Your task to perform on an android device: Open Youtube and go to the subscriptions tab Image 0: 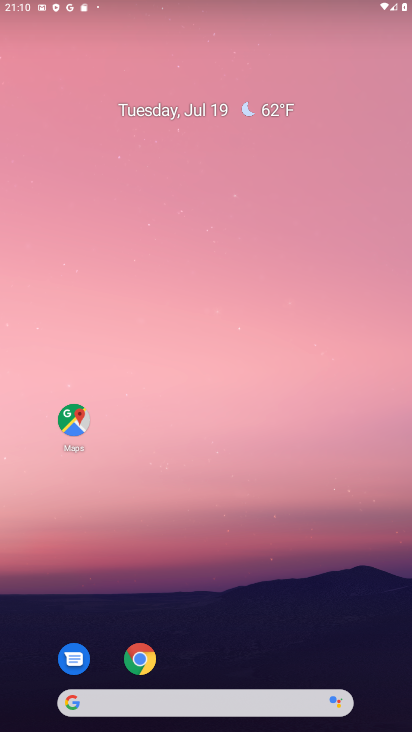
Step 0: press home button
Your task to perform on an android device: Open Youtube and go to the subscriptions tab Image 1: 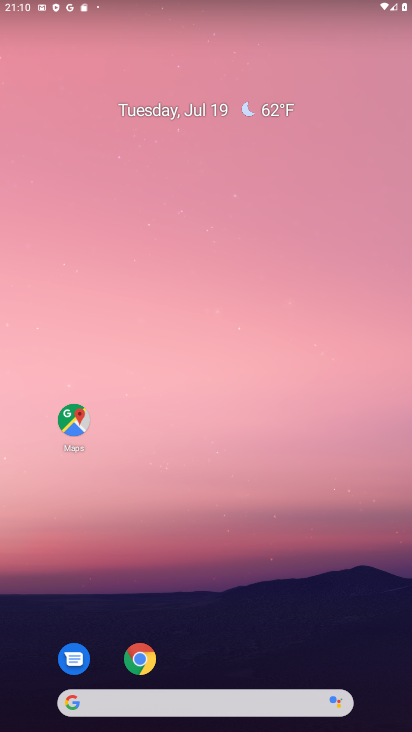
Step 1: drag from (264, 540) to (380, 8)
Your task to perform on an android device: Open Youtube and go to the subscriptions tab Image 2: 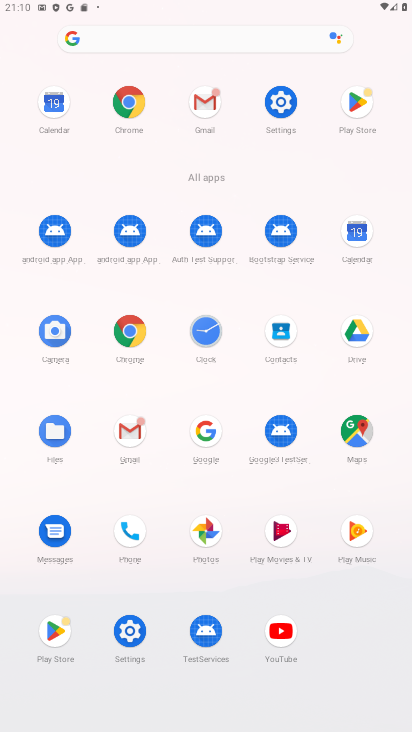
Step 2: click (269, 635)
Your task to perform on an android device: Open Youtube and go to the subscriptions tab Image 3: 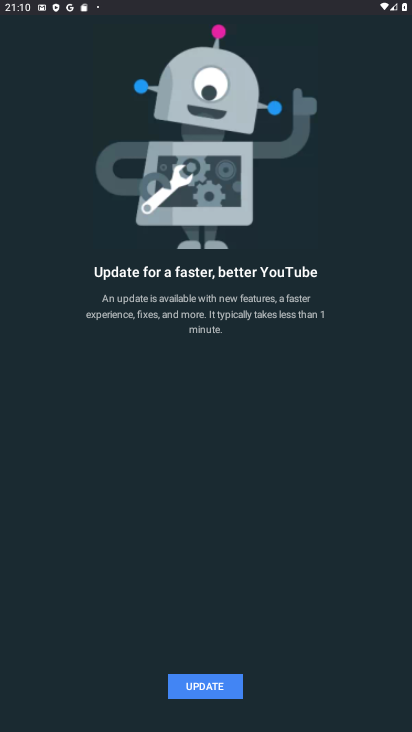
Step 3: click (222, 679)
Your task to perform on an android device: Open Youtube and go to the subscriptions tab Image 4: 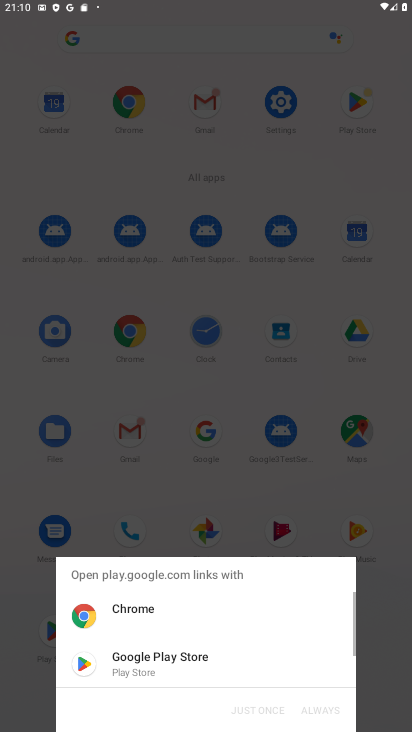
Step 4: click (207, 659)
Your task to perform on an android device: Open Youtube and go to the subscriptions tab Image 5: 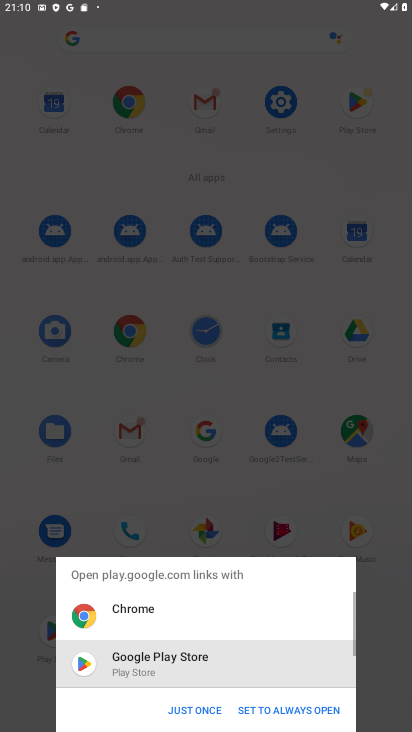
Step 5: click (194, 715)
Your task to perform on an android device: Open Youtube and go to the subscriptions tab Image 6: 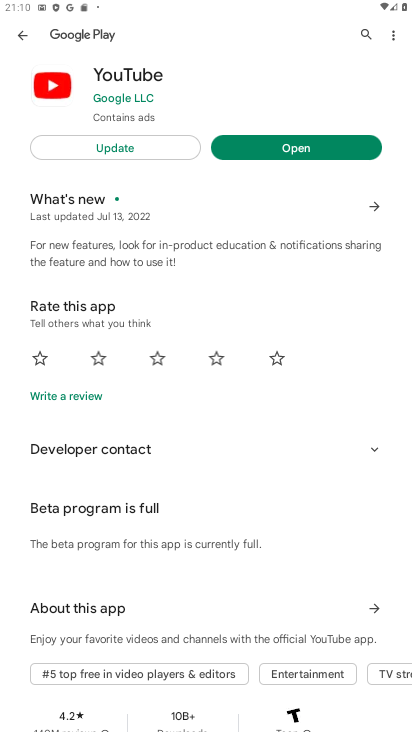
Step 6: click (109, 156)
Your task to perform on an android device: Open Youtube and go to the subscriptions tab Image 7: 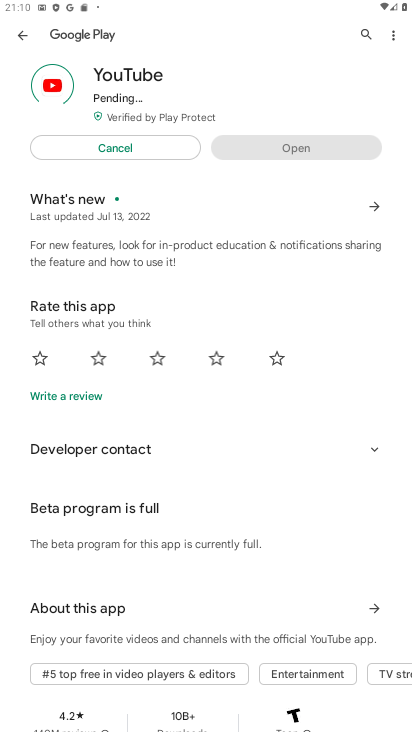
Step 7: drag from (299, 639) to (301, 365)
Your task to perform on an android device: Open Youtube and go to the subscriptions tab Image 8: 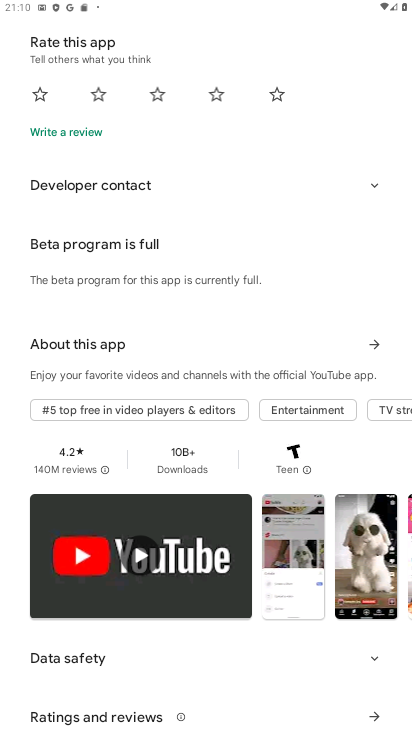
Step 8: click (301, 469)
Your task to perform on an android device: Open Youtube and go to the subscriptions tab Image 9: 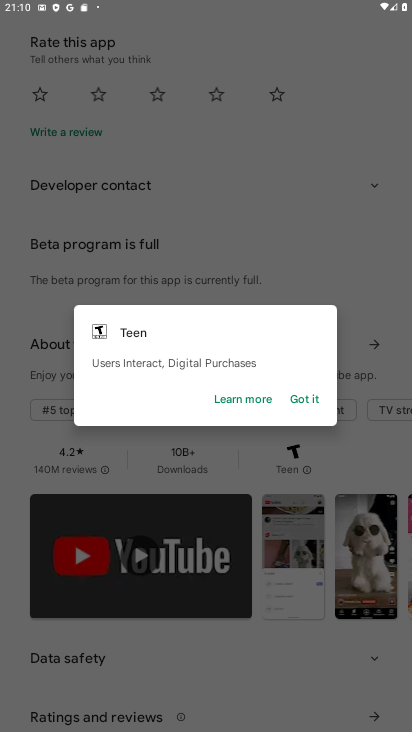
Step 9: click (318, 392)
Your task to perform on an android device: Open Youtube and go to the subscriptions tab Image 10: 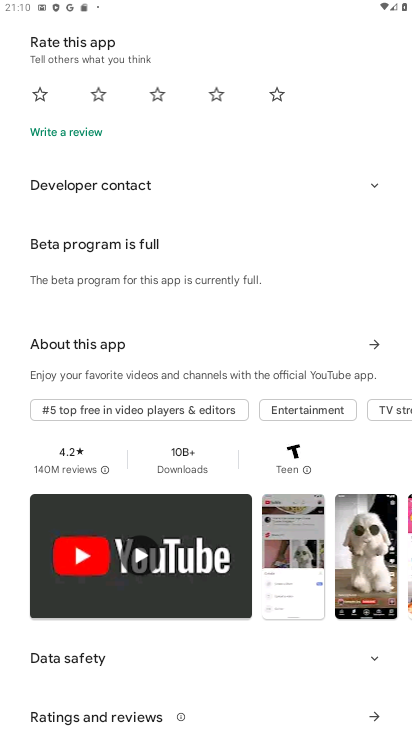
Step 10: drag from (309, 81) to (170, 729)
Your task to perform on an android device: Open Youtube and go to the subscriptions tab Image 11: 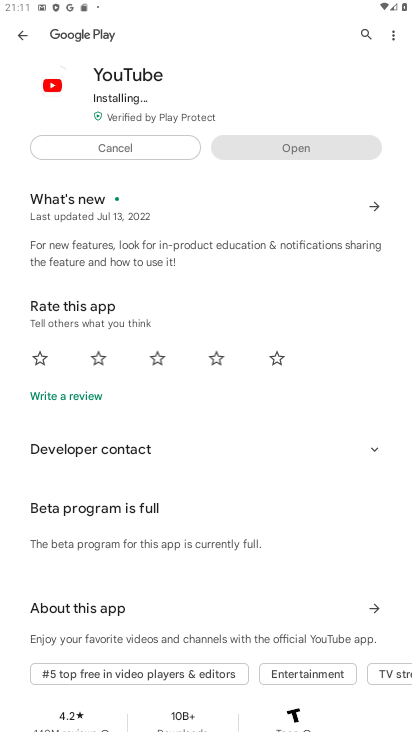
Step 11: click (251, 151)
Your task to perform on an android device: Open Youtube and go to the subscriptions tab Image 12: 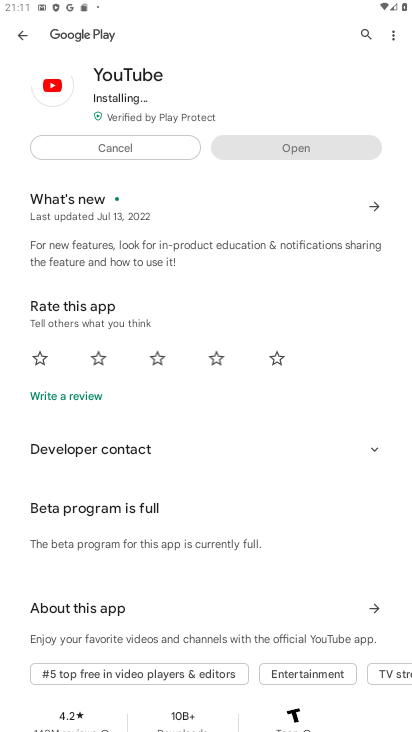
Step 12: click (251, 151)
Your task to perform on an android device: Open Youtube and go to the subscriptions tab Image 13: 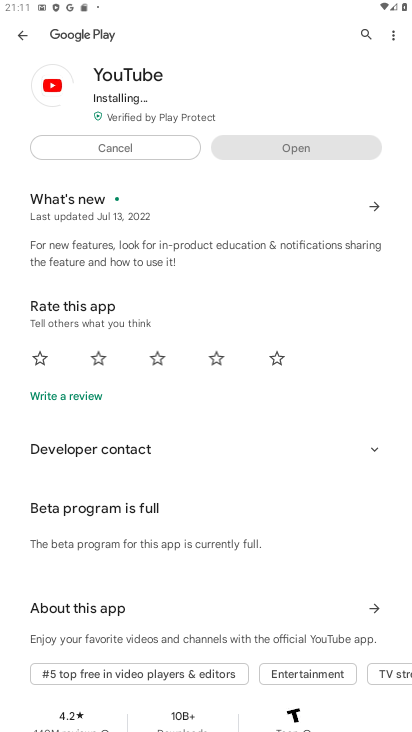
Step 13: click (251, 151)
Your task to perform on an android device: Open Youtube and go to the subscriptions tab Image 14: 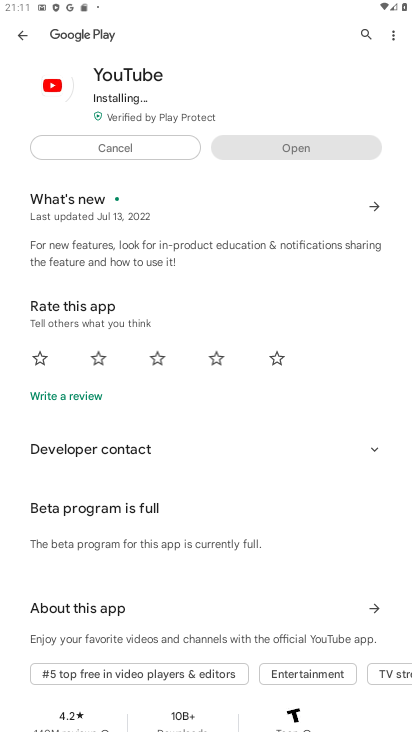
Step 14: click (251, 151)
Your task to perform on an android device: Open Youtube and go to the subscriptions tab Image 15: 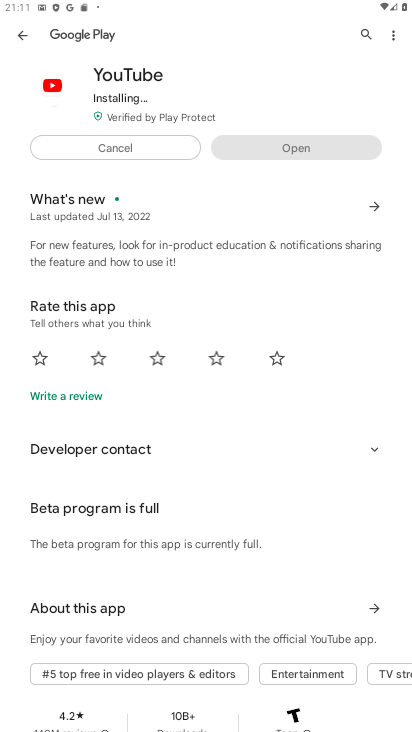
Step 15: click (251, 151)
Your task to perform on an android device: Open Youtube and go to the subscriptions tab Image 16: 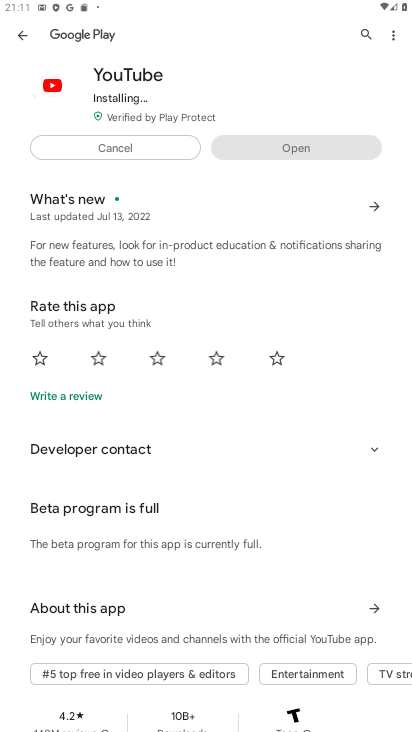
Step 16: click (251, 151)
Your task to perform on an android device: Open Youtube and go to the subscriptions tab Image 17: 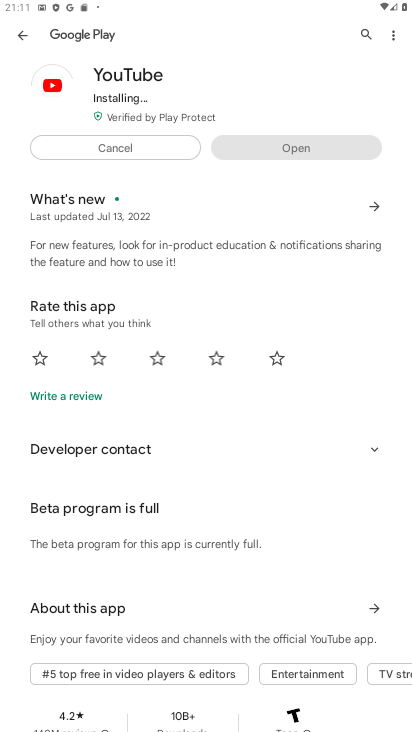
Step 17: click (251, 151)
Your task to perform on an android device: Open Youtube and go to the subscriptions tab Image 18: 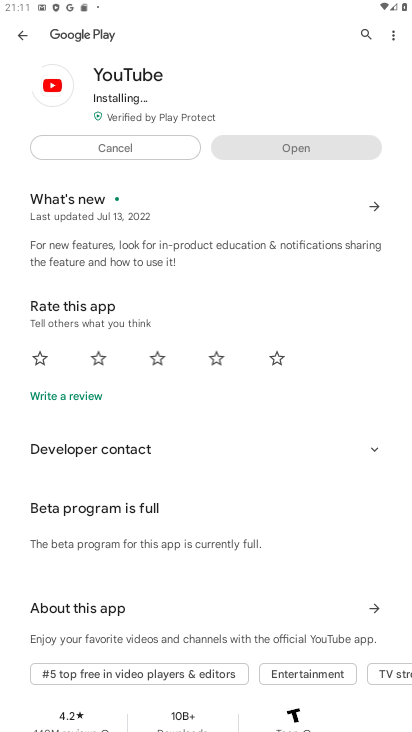
Step 18: click (251, 151)
Your task to perform on an android device: Open Youtube and go to the subscriptions tab Image 19: 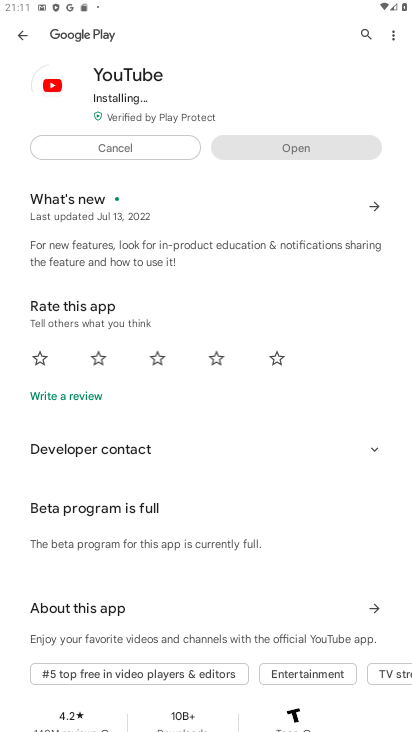
Step 19: click (251, 151)
Your task to perform on an android device: Open Youtube and go to the subscriptions tab Image 20: 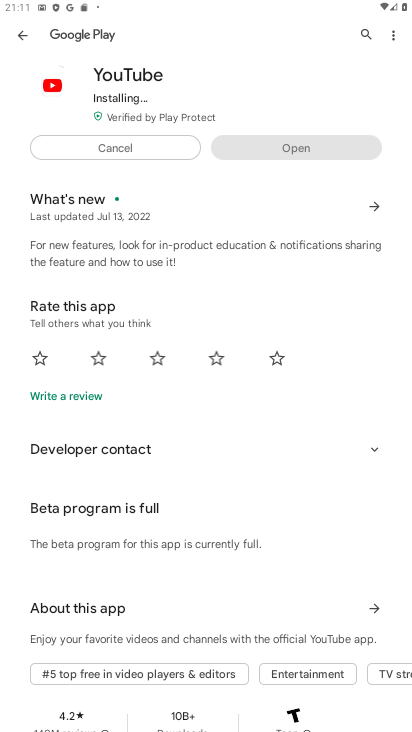
Step 20: click (251, 151)
Your task to perform on an android device: Open Youtube and go to the subscriptions tab Image 21: 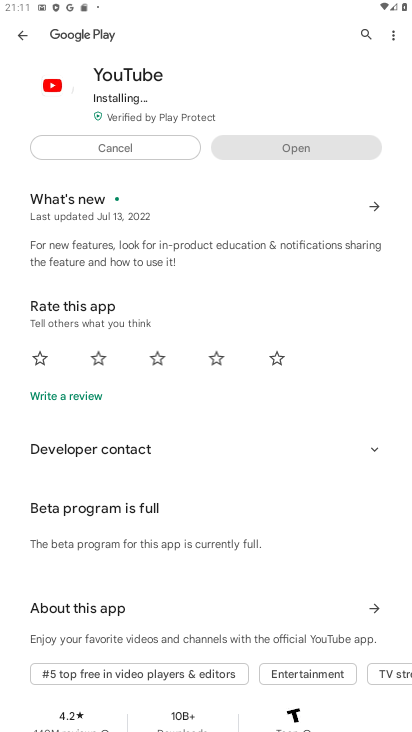
Step 21: click (251, 151)
Your task to perform on an android device: Open Youtube and go to the subscriptions tab Image 22: 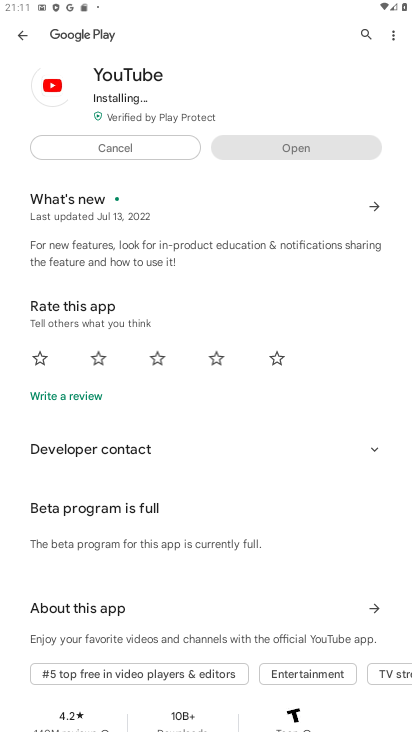
Step 22: click (251, 151)
Your task to perform on an android device: Open Youtube and go to the subscriptions tab Image 23: 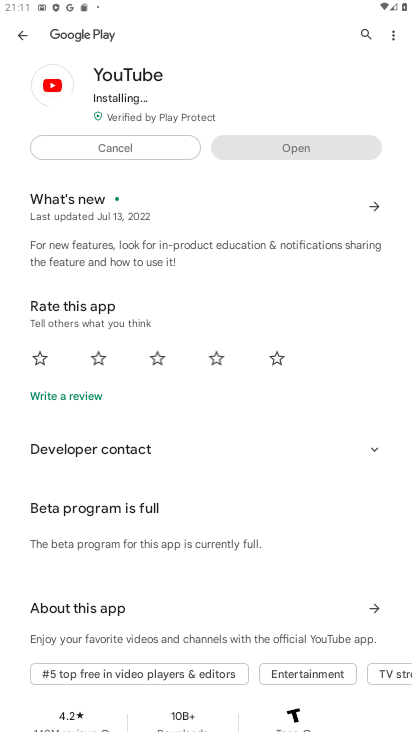
Step 23: click (251, 151)
Your task to perform on an android device: Open Youtube and go to the subscriptions tab Image 24: 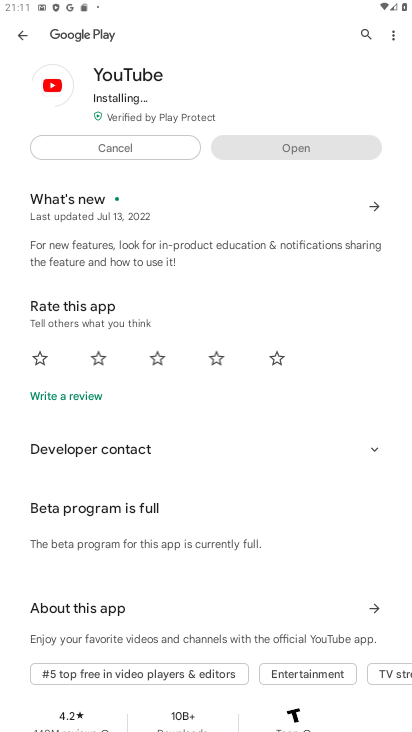
Step 24: click (251, 151)
Your task to perform on an android device: Open Youtube and go to the subscriptions tab Image 25: 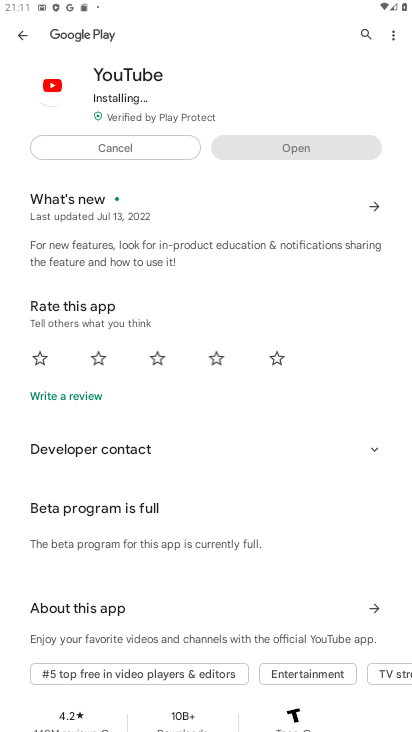
Step 25: click (251, 151)
Your task to perform on an android device: Open Youtube and go to the subscriptions tab Image 26: 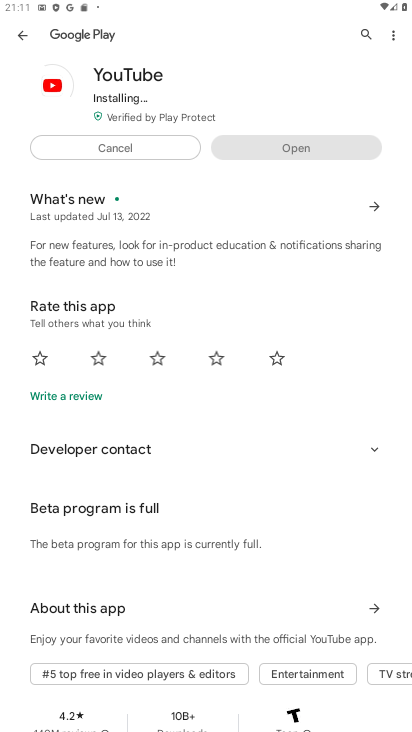
Step 26: click (251, 151)
Your task to perform on an android device: Open Youtube and go to the subscriptions tab Image 27: 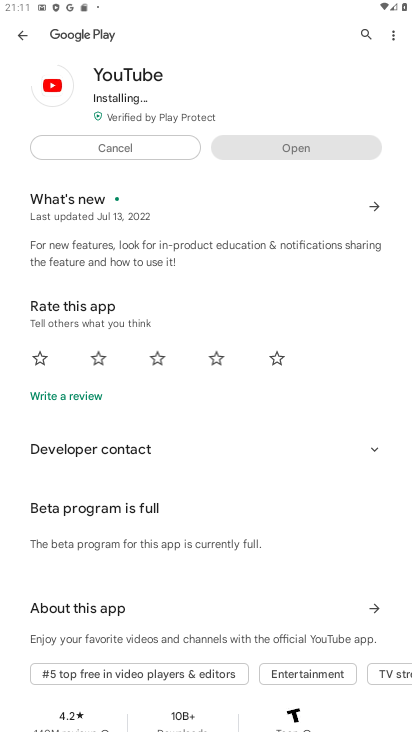
Step 27: click (251, 151)
Your task to perform on an android device: Open Youtube and go to the subscriptions tab Image 28: 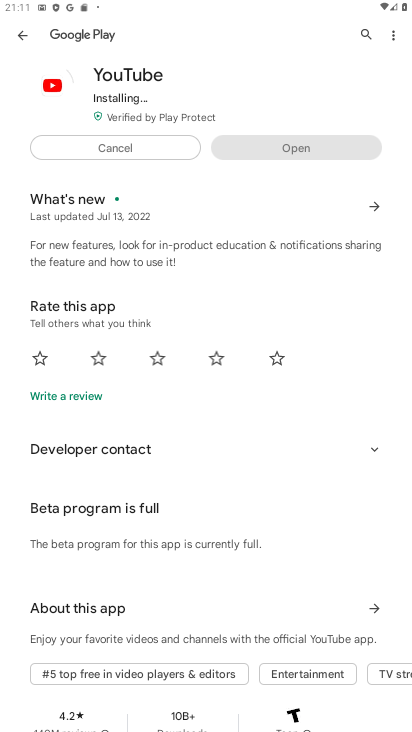
Step 28: click (251, 151)
Your task to perform on an android device: Open Youtube and go to the subscriptions tab Image 29: 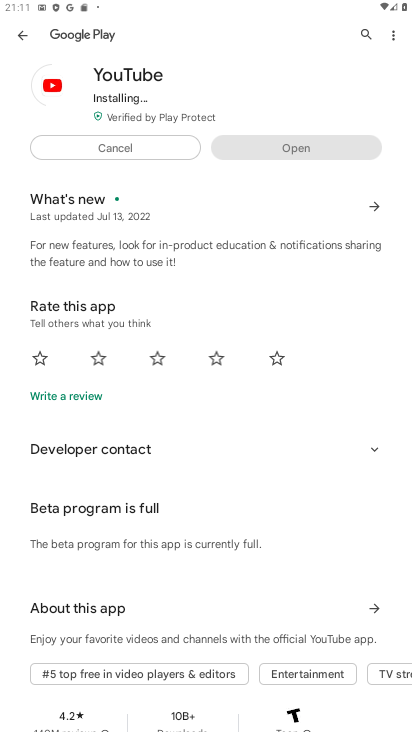
Step 29: click (251, 151)
Your task to perform on an android device: Open Youtube and go to the subscriptions tab Image 30: 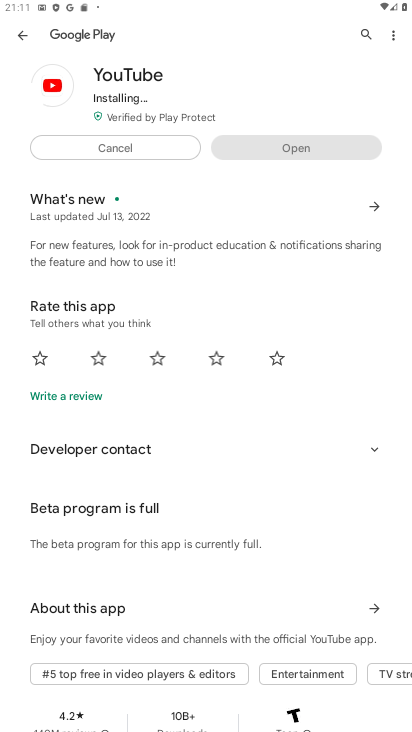
Step 30: click (251, 151)
Your task to perform on an android device: Open Youtube and go to the subscriptions tab Image 31: 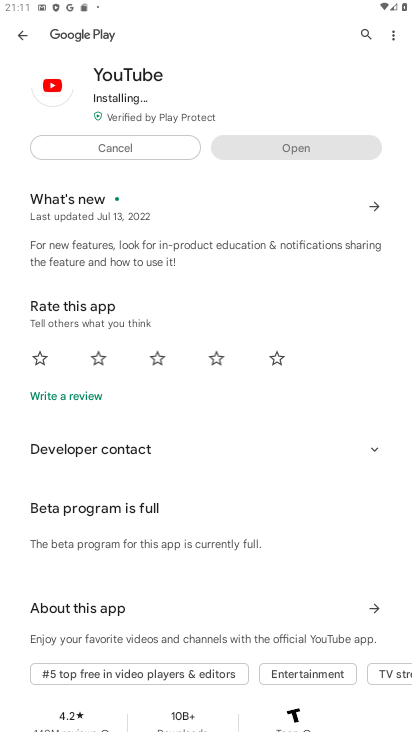
Step 31: click (251, 151)
Your task to perform on an android device: Open Youtube and go to the subscriptions tab Image 32: 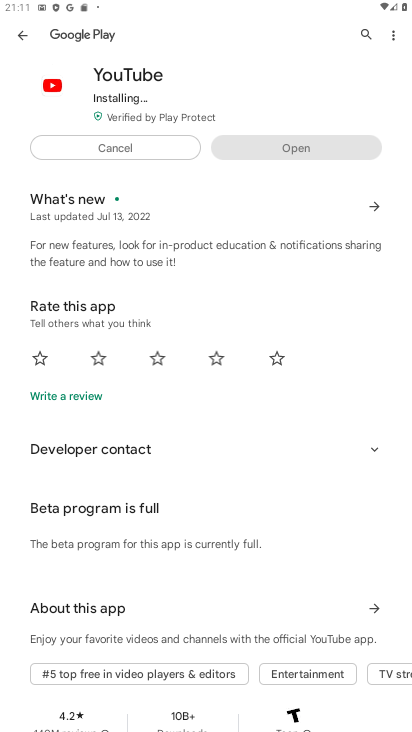
Step 32: click (251, 151)
Your task to perform on an android device: Open Youtube and go to the subscriptions tab Image 33: 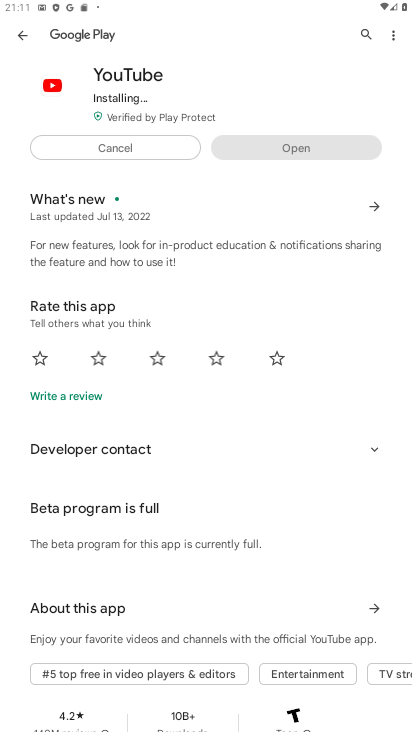
Step 33: click (251, 151)
Your task to perform on an android device: Open Youtube and go to the subscriptions tab Image 34: 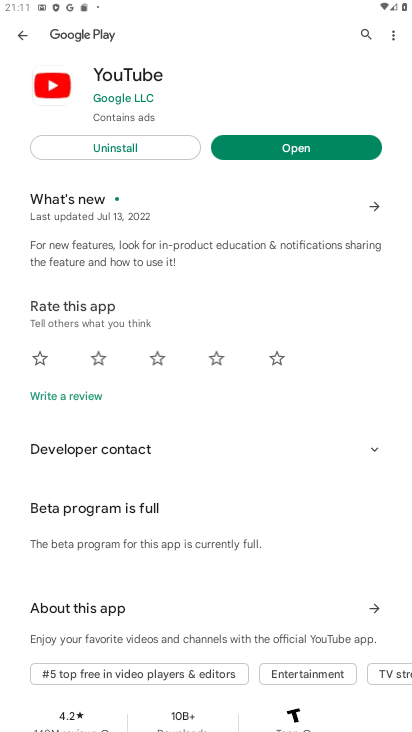
Step 34: click (251, 151)
Your task to perform on an android device: Open Youtube and go to the subscriptions tab Image 35: 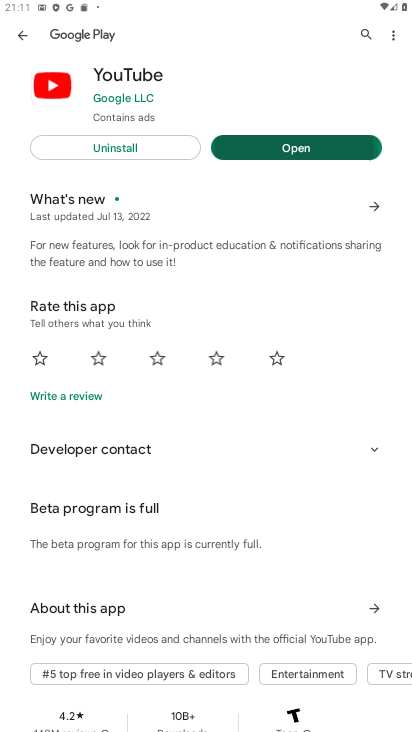
Step 35: click (251, 151)
Your task to perform on an android device: Open Youtube and go to the subscriptions tab Image 36: 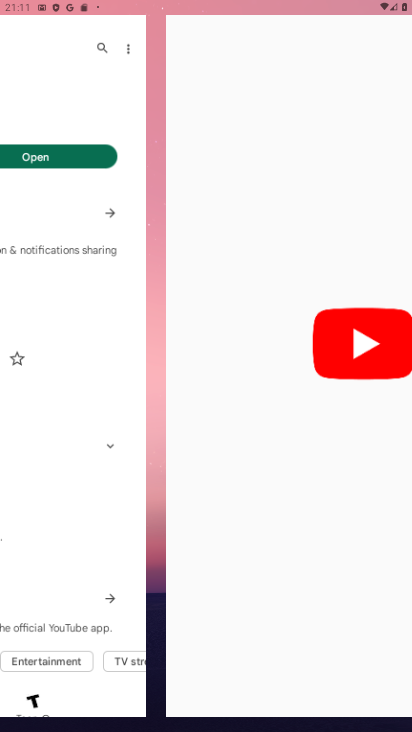
Step 36: click (251, 151)
Your task to perform on an android device: Open Youtube and go to the subscriptions tab Image 37: 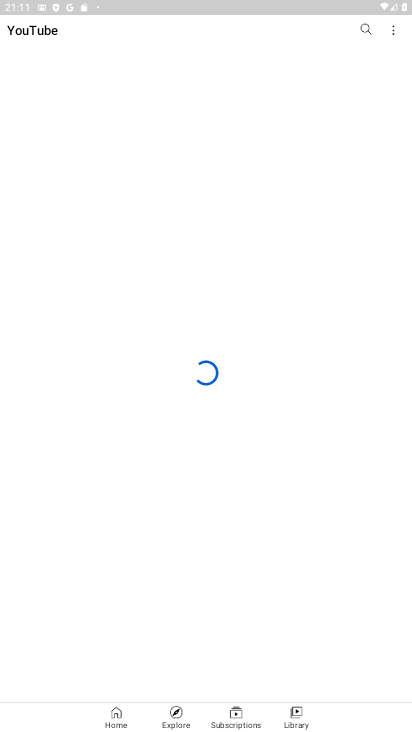
Step 37: click (236, 726)
Your task to perform on an android device: Open Youtube and go to the subscriptions tab Image 38: 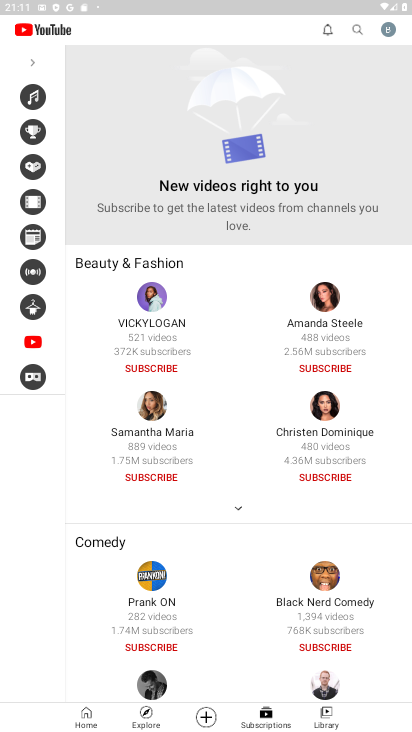
Step 38: task complete